Your task to perform on an android device: Open the calendar and show me this week's events Image 0: 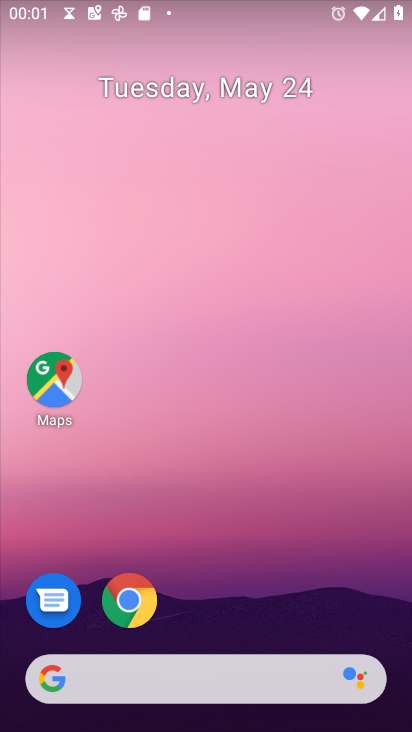
Step 0: drag from (215, 730) to (209, 148)
Your task to perform on an android device: Open the calendar and show me this week's events Image 1: 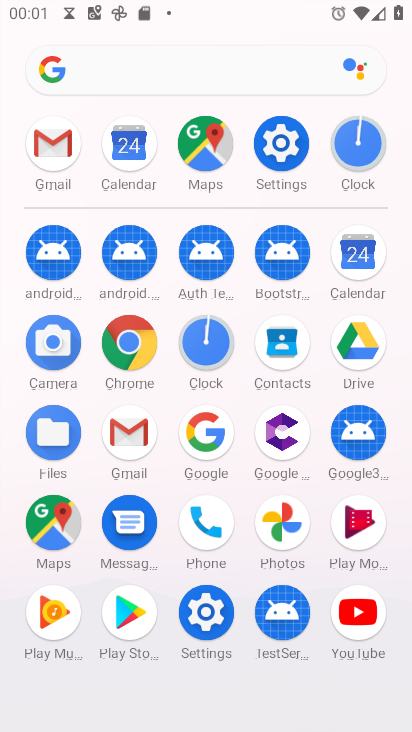
Step 1: click (355, 257)
Your task to perform on an android device: Open the calendar and show me this week's events Image 2: 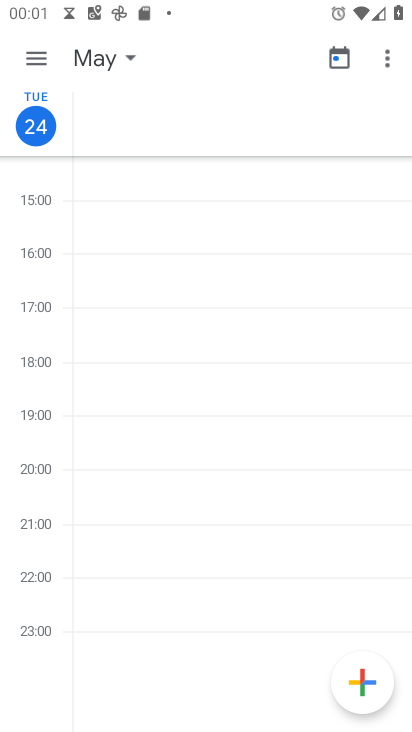
Step 2: click (106, 57)
Your task to perform on an android device: Open the calendar and show me this week's events Image 3: 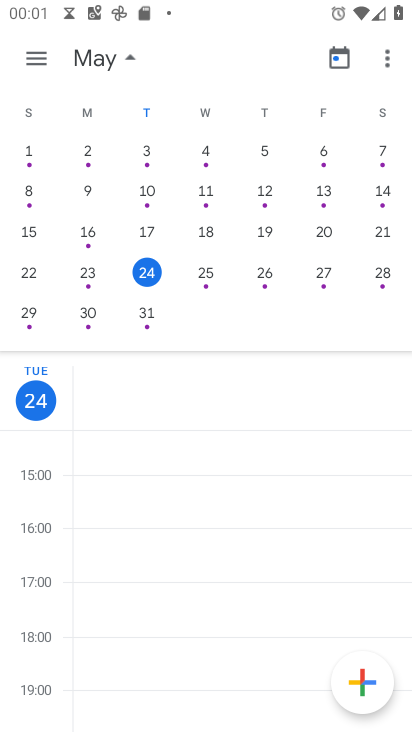
Step 3: click (30, 55)
Your task to perform on an android device: Open the calendar and show me this week's events Image 4: 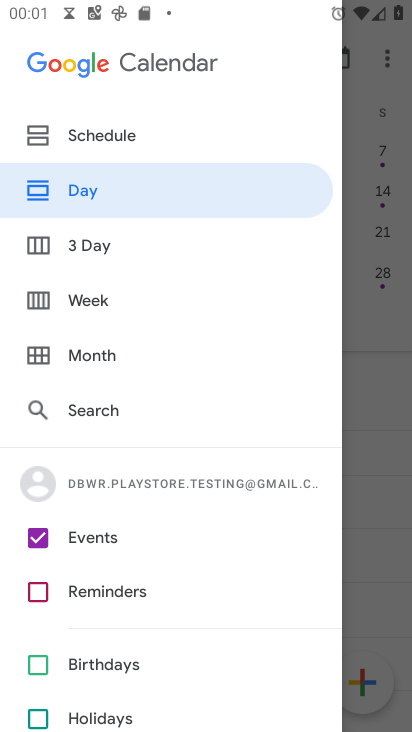
Step 4: click (86, 294)
Your task to perform on an android device: Open the calendar and show me this week's events Image 5: 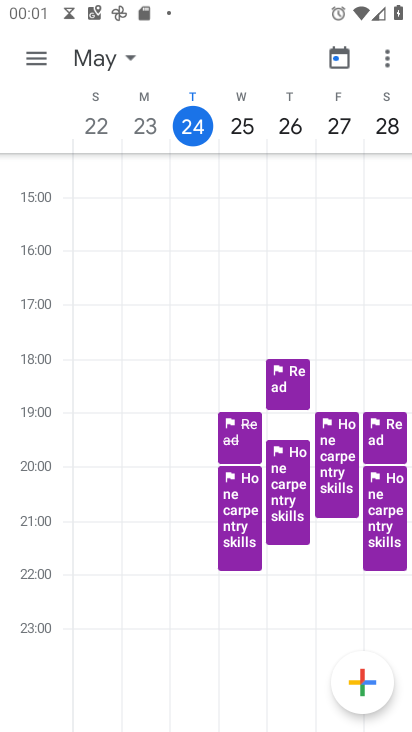
Step 5: task complete